Your task to perform on an android device: add a label to a message in the gmail app Image 0: 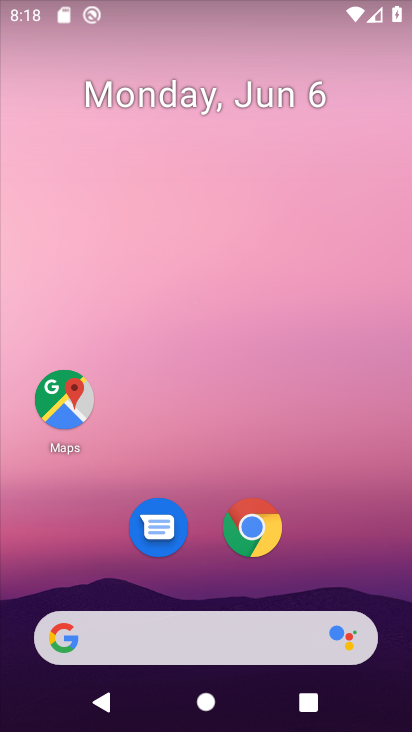
Step 0: drag from (249, 615) to (230, 0)
Your task to perform on an android device: add a label to a message in the gmail app Image 1: 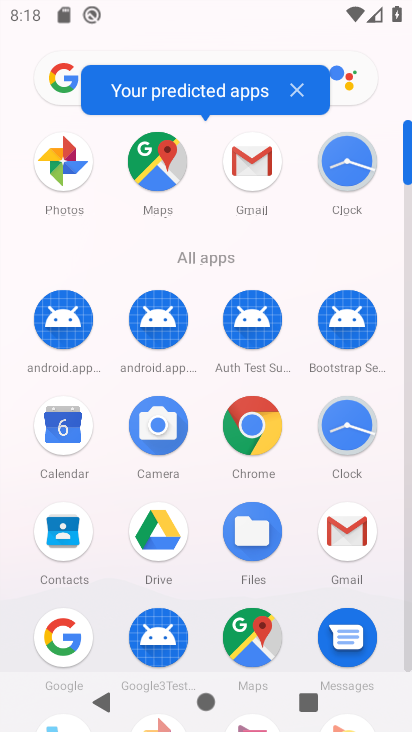
Step 1: click (355, 535)
Your task to perform on an android device: add a label to a message in the gmail app Image 2: 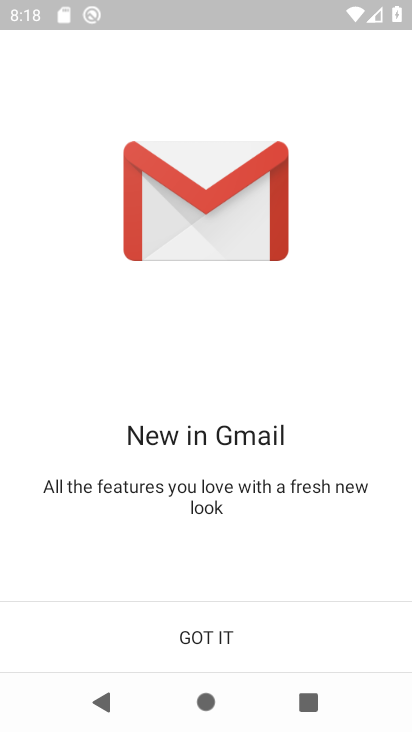
Step 2: click (206, 629)
Your task to perform on an android device: add a label to a message in the gmail app Image 3: 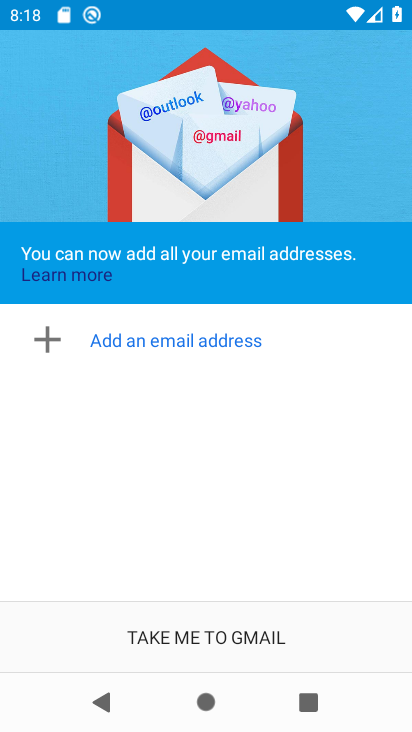
Step 3: click (207, 639)
Your task to perform on an android device: add a label to a message in the gmail app Image 4: 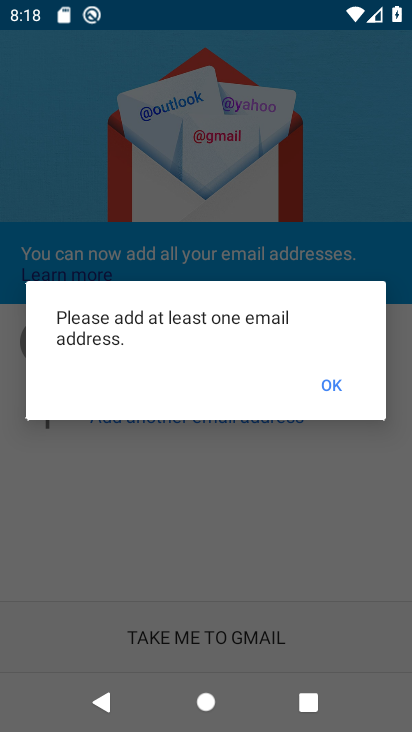
Step 4: click (326, 382)
Your task to perform on an android device: add a label to a message in the gmail app Image 5: 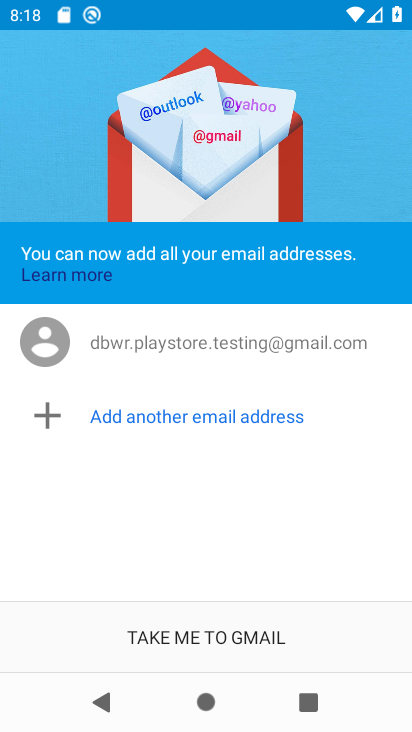
Step 5: click (260, 635)
Your task to perform on an android device: add a label to a message in the gmail app Image 6: 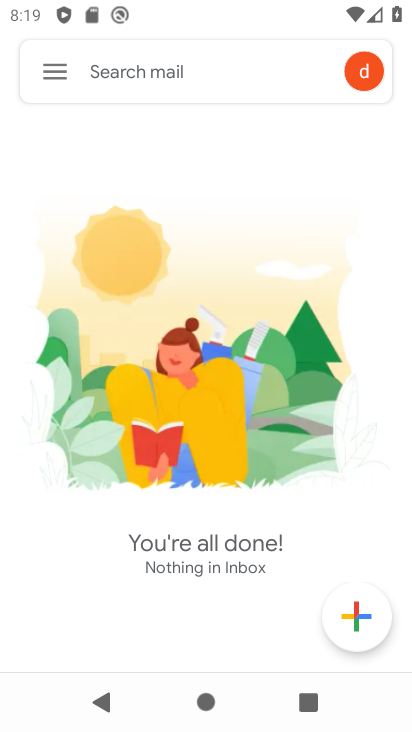
Step 6: task complete